Your task to perform on an android device: Add lg ultragear to the cart on target.com Image 0: 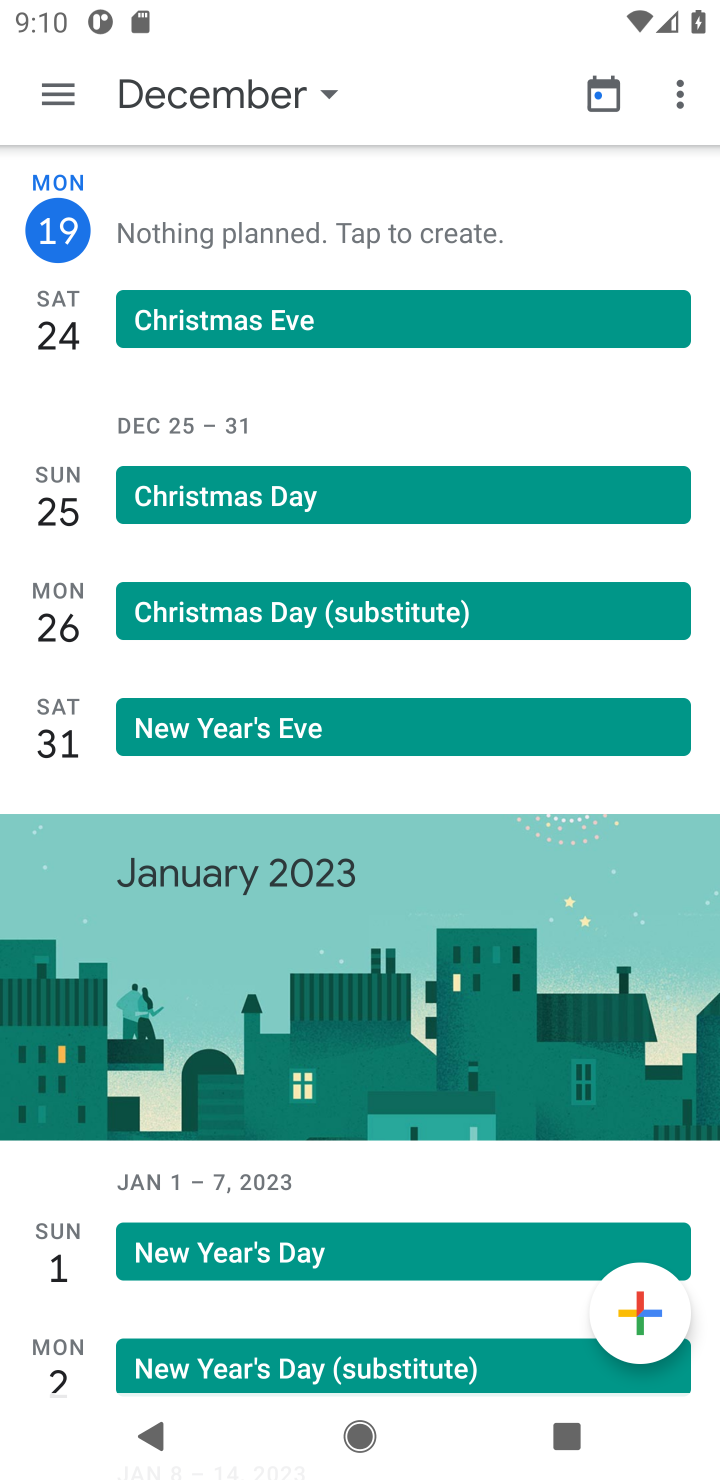
Step 0: press home button
Your task to perform on an android device: Add lg ultragear to the cart on target.com Image 1: 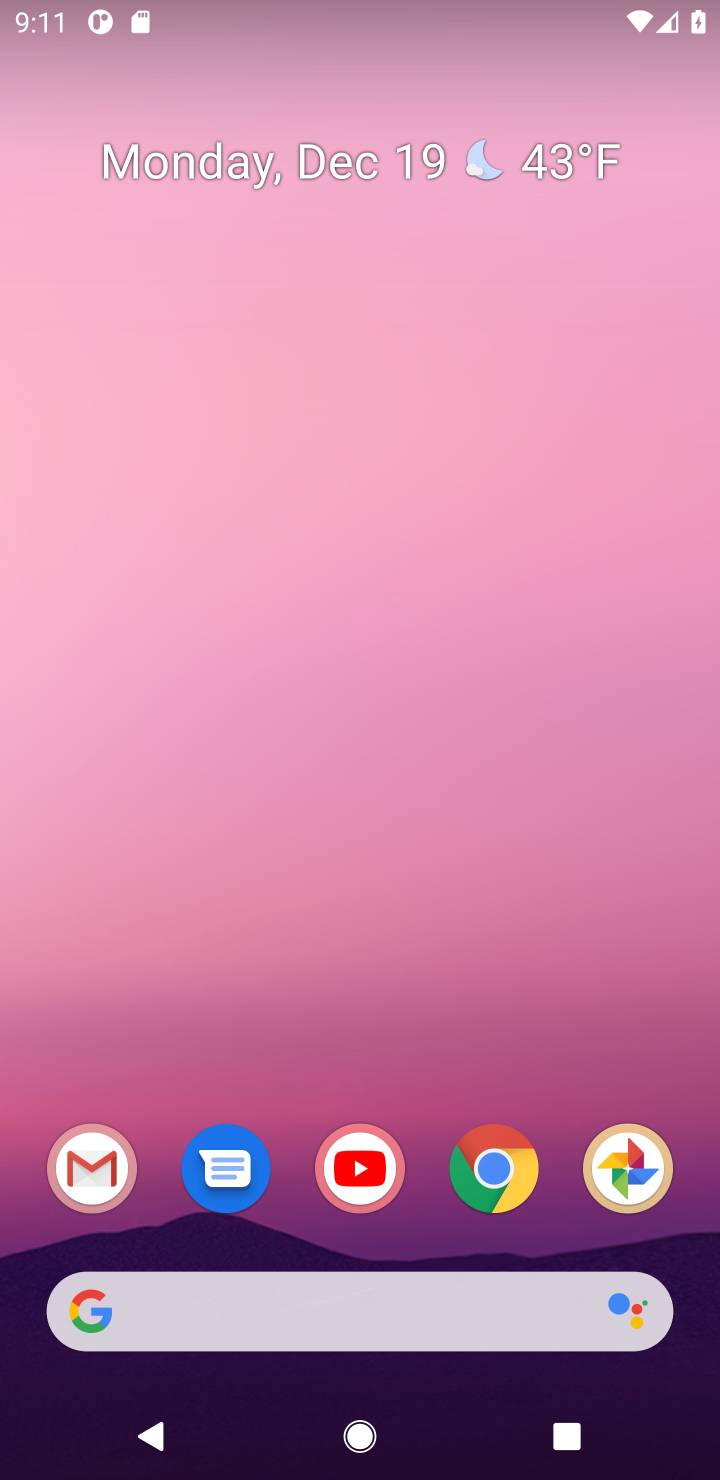
Step 1: click (498, 1181)
Your task to perform on an android device: Add lg ultragear to the cart on target.com Image 2: 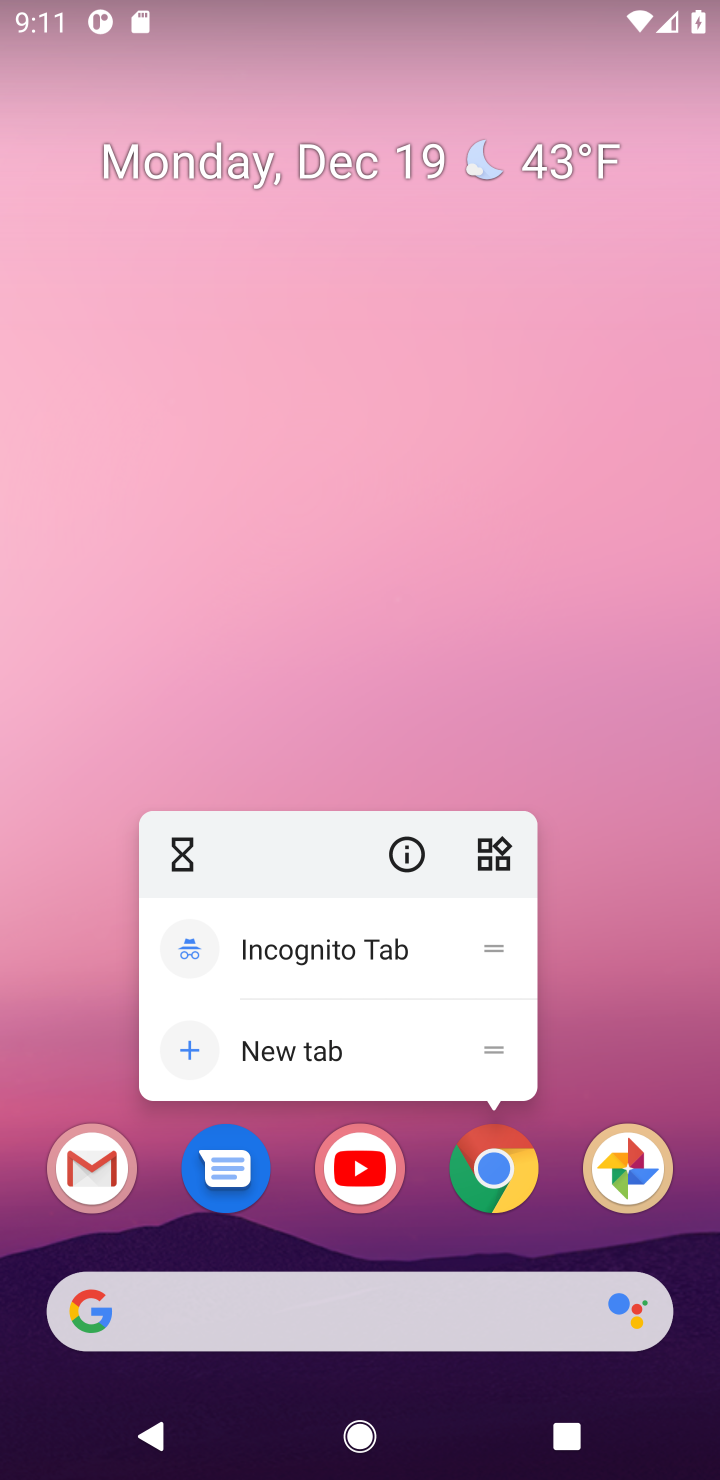
Step 2: click (498, 1181)
Your task to perform on an android device: Add lg ultragear to the cart on target.com Image 3: 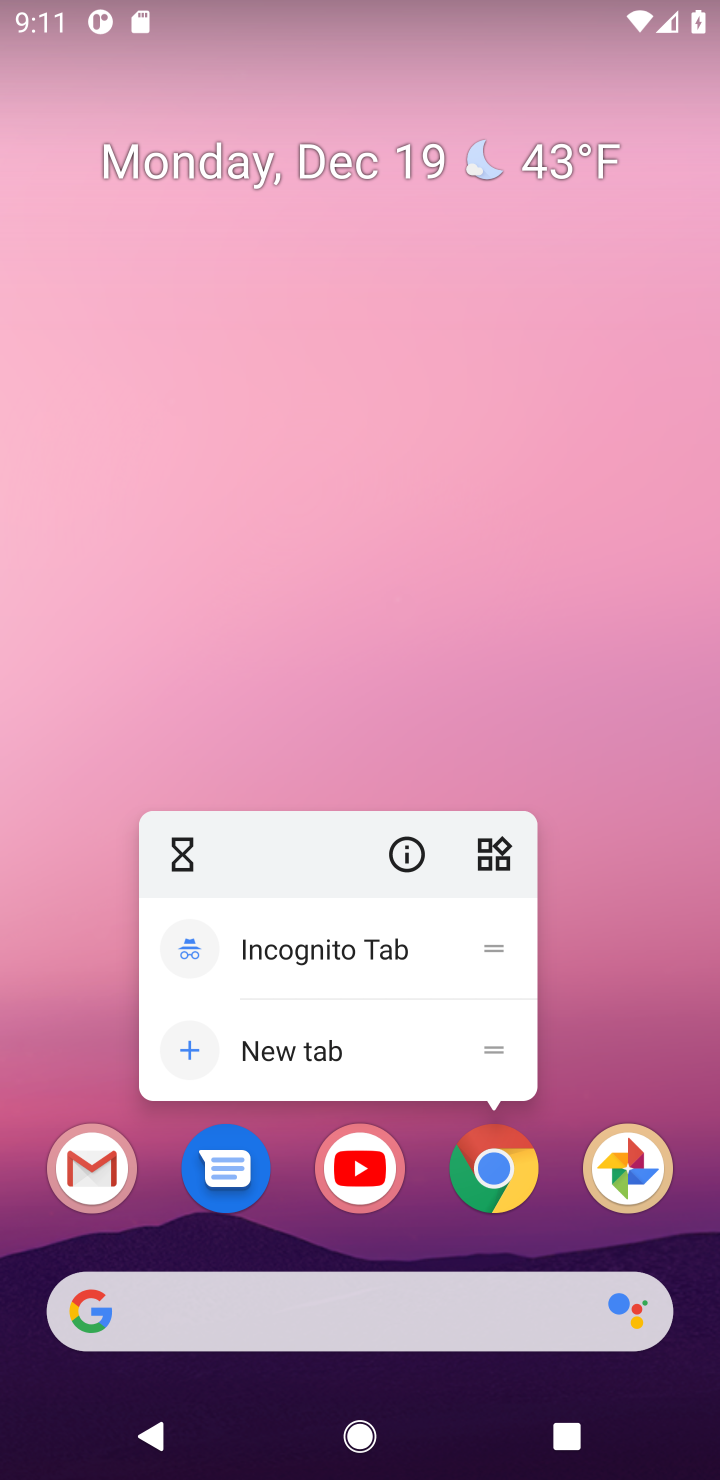
Step 3: click (481, 1167)
Your task to perform on an android device: Add lg ultragear to the cart on target.com Image 4: 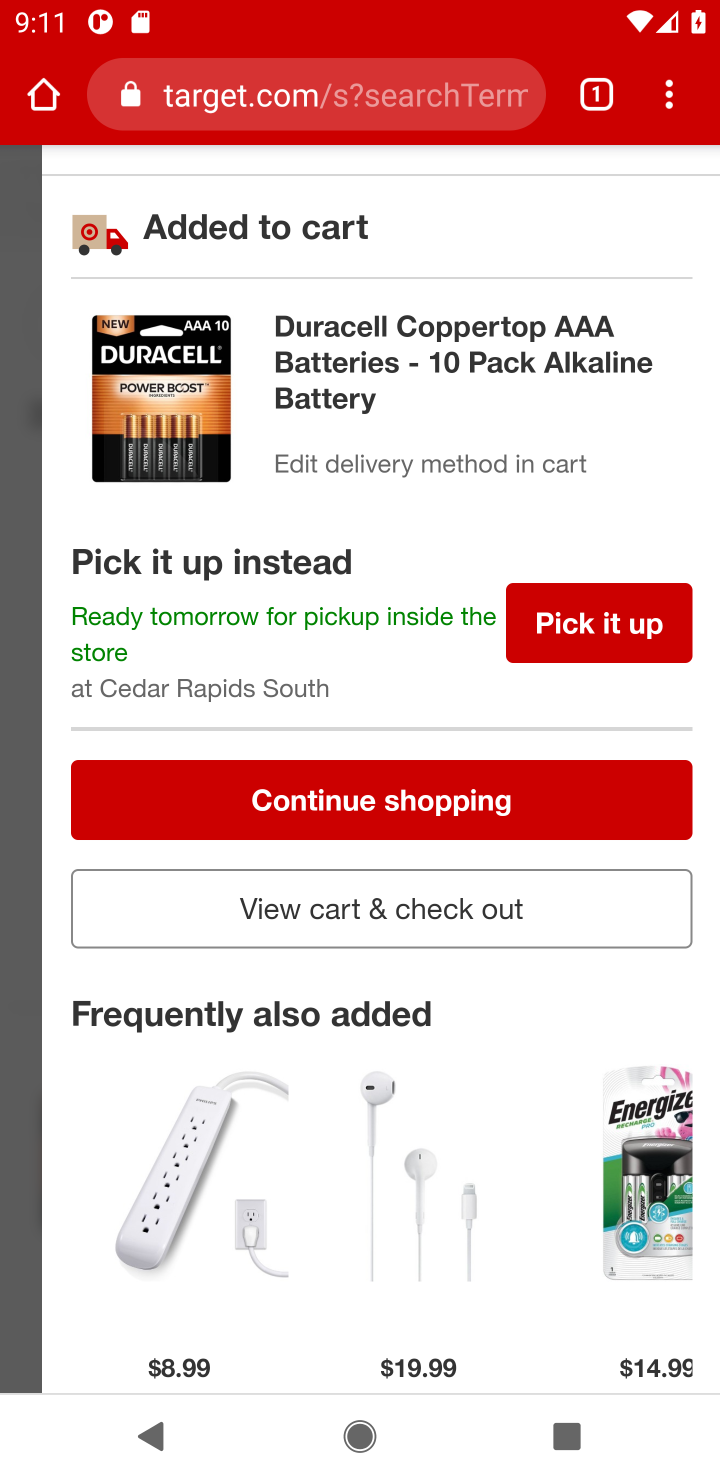
Step 4: click (659, 212)
Your task to perform on an android device: Add lg ultragear to the cart on target.com Image 5: 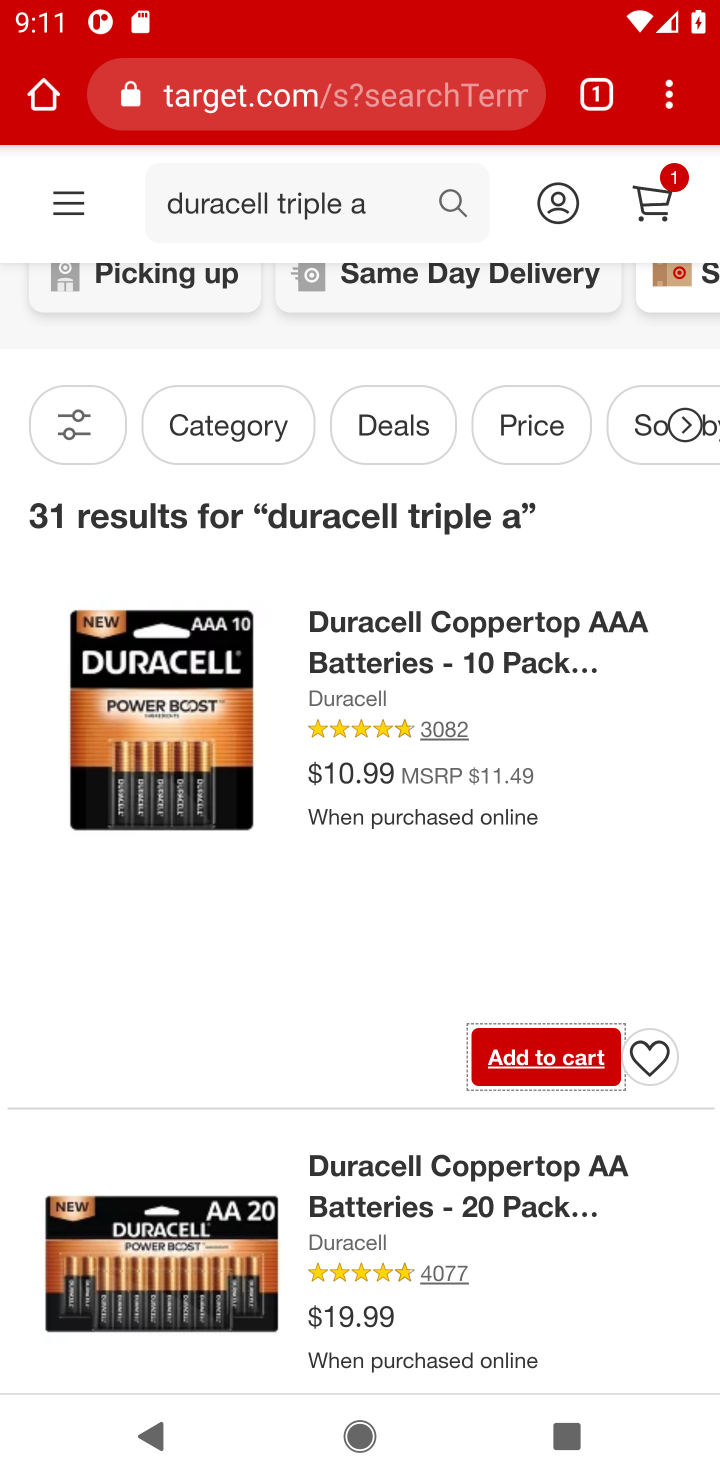
Step 5: click (313, 207)
Your task to perform on an android device: Add lg ultragear to the cart on target.com Image 6: 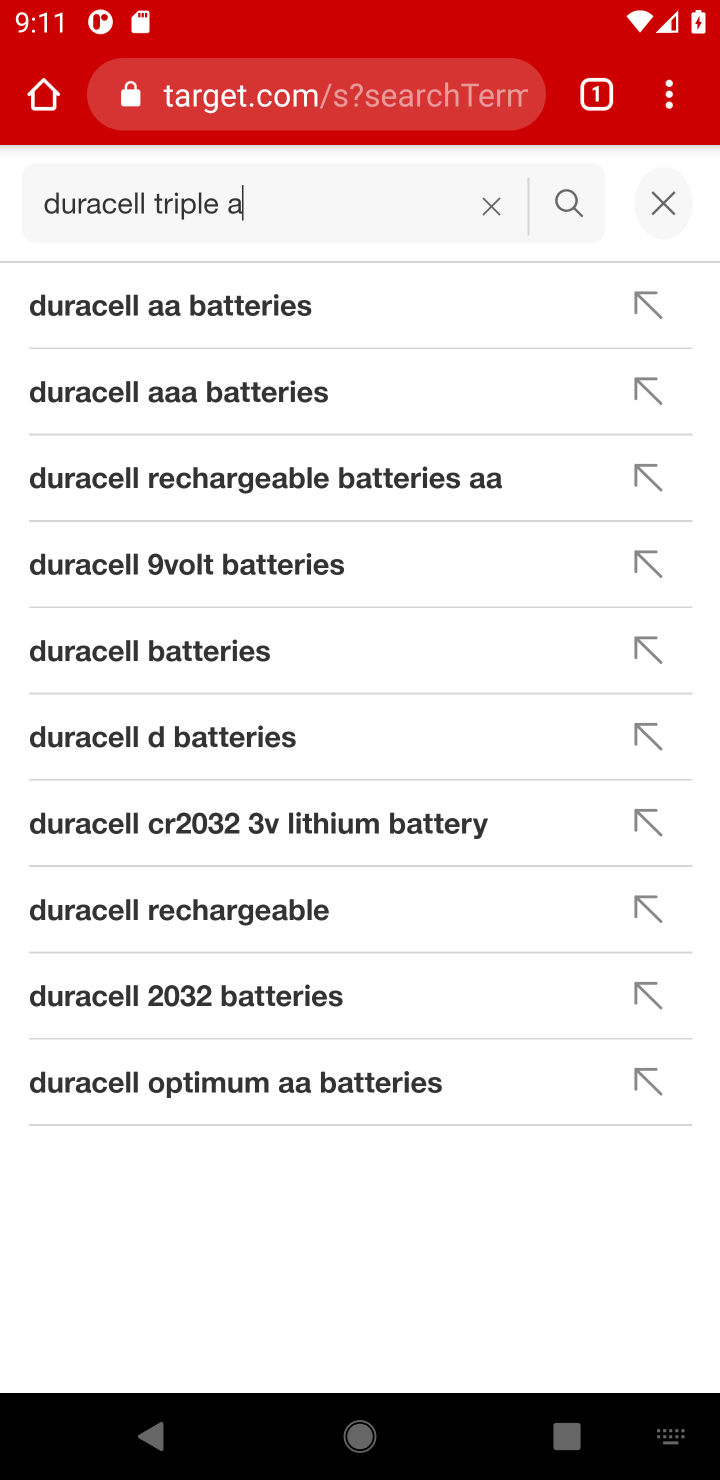
Step 6: click (491, 204)
Your task to perform on an android device: Add lg ultragear to the cart on target.com Image 7: 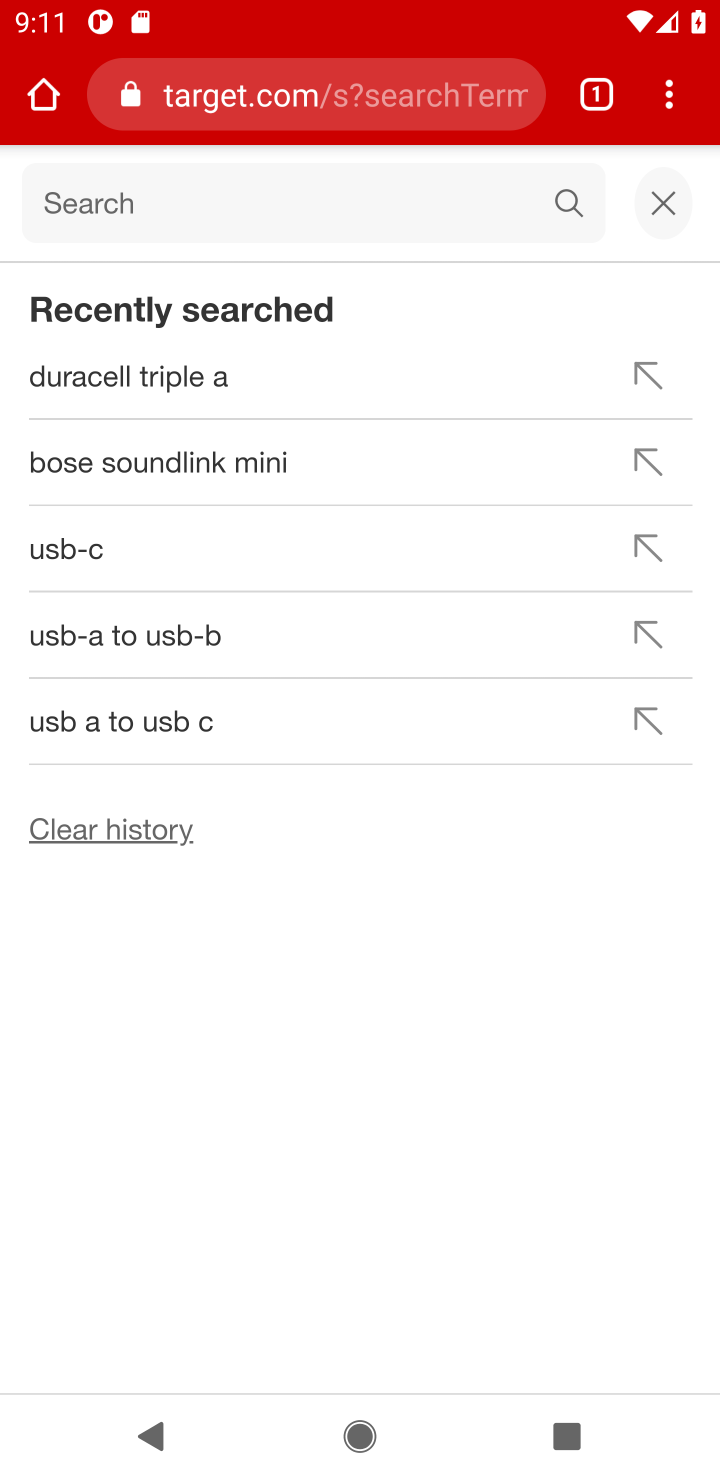
Step 7: type " lg ultragear"
Your task to perform on an android device: Add lg ultragear to the cart on target.com Image 8: 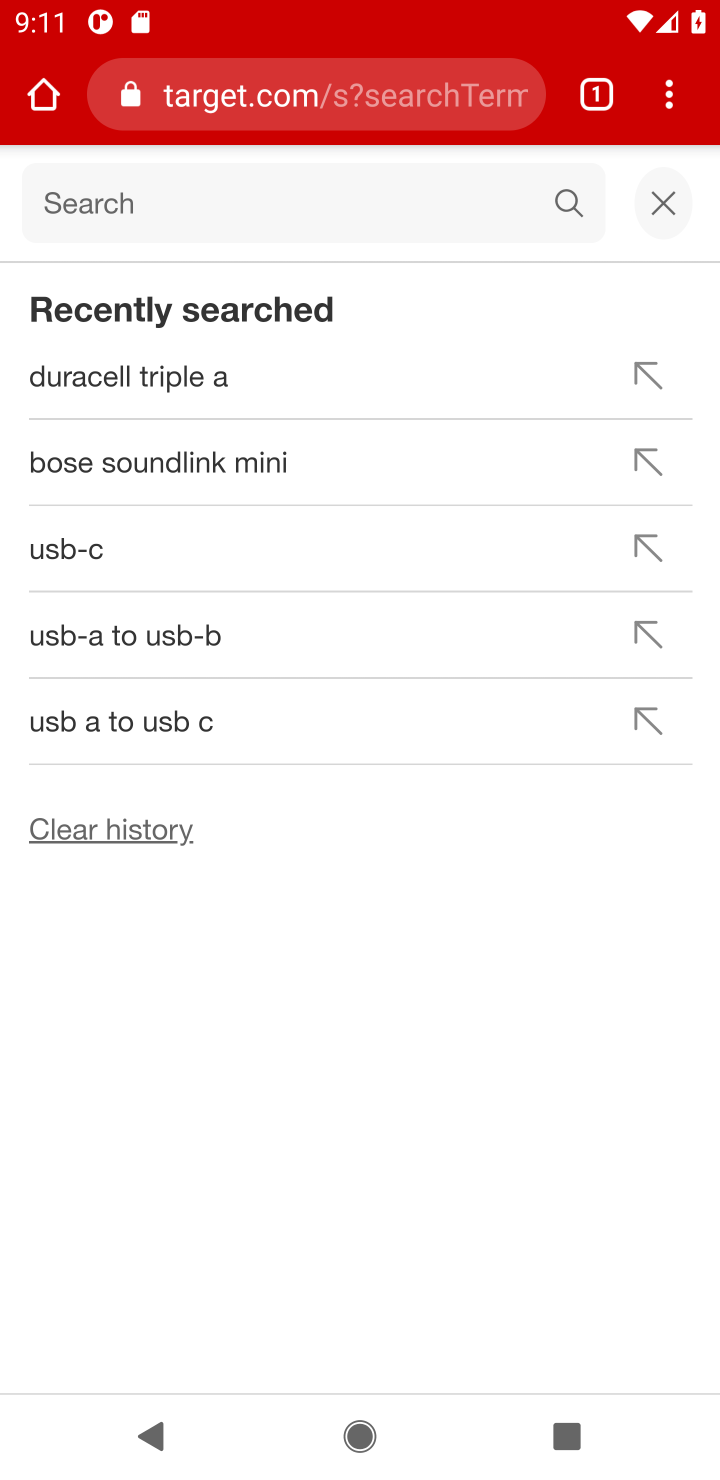
Step 8: click (127, 212)
Your task to perform on an android device: Add lg ultragear to the cart on target.com Image 9: 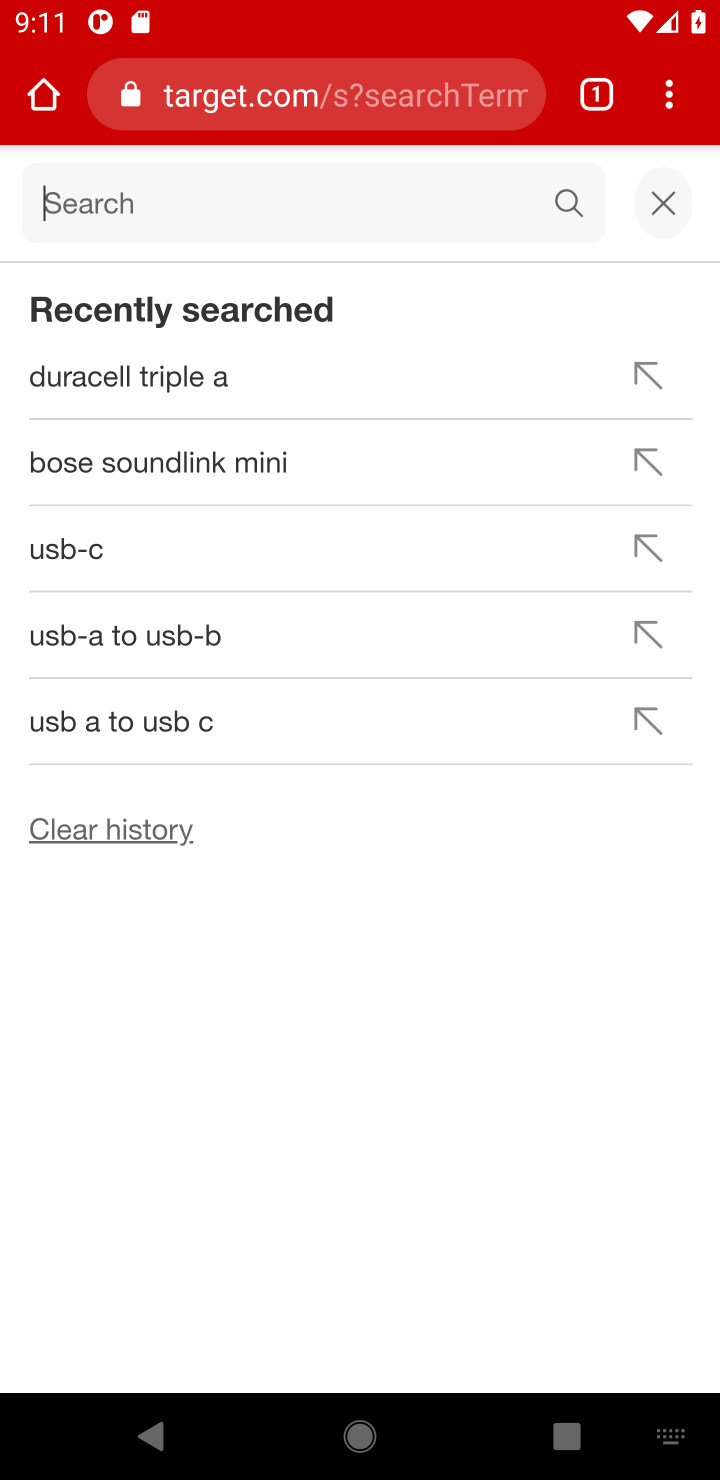
Step 9: type " lg ultragear"
Your task to perform on an android device: Add lg ultragear to the cart on target.com Image 10: 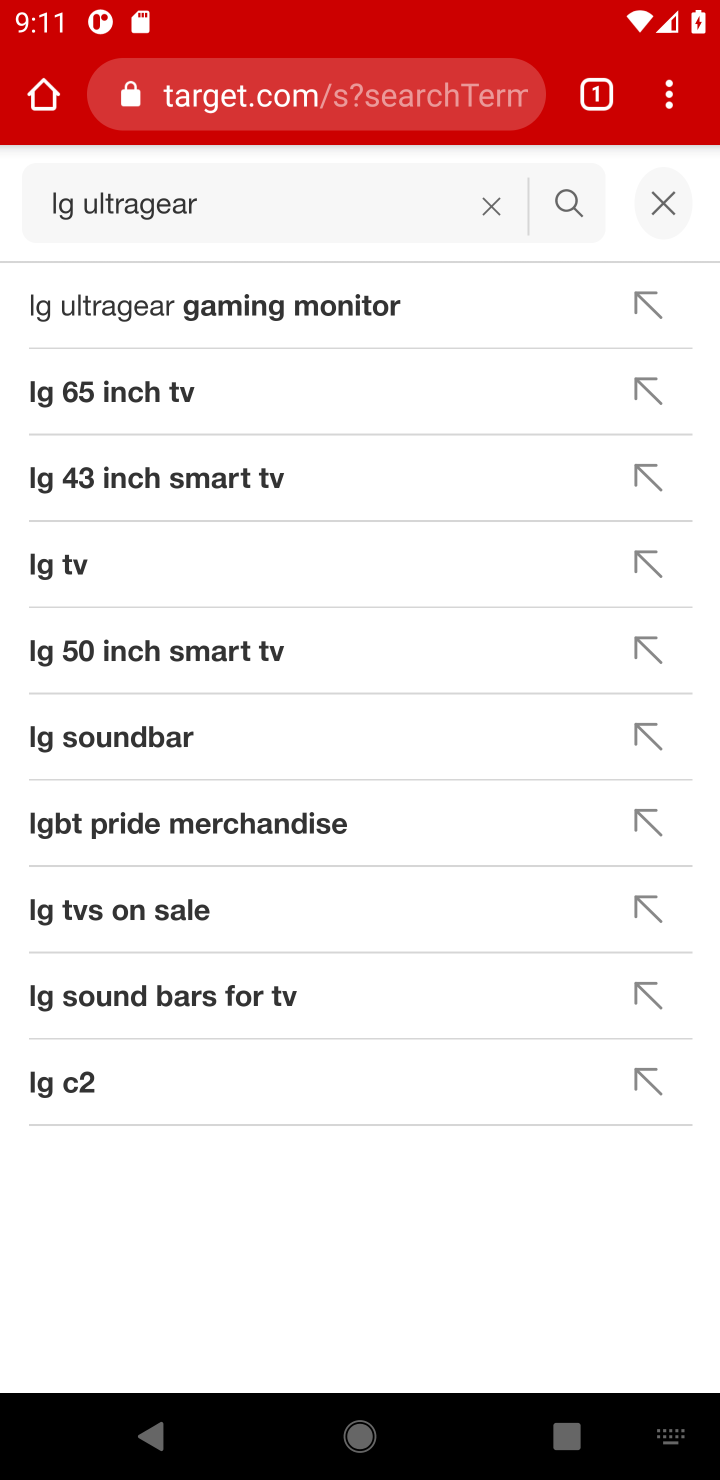
Step 10: click (565, 203)
Your task to perform on an android device: Add lg ultragear to the cart on target.com Image 11: 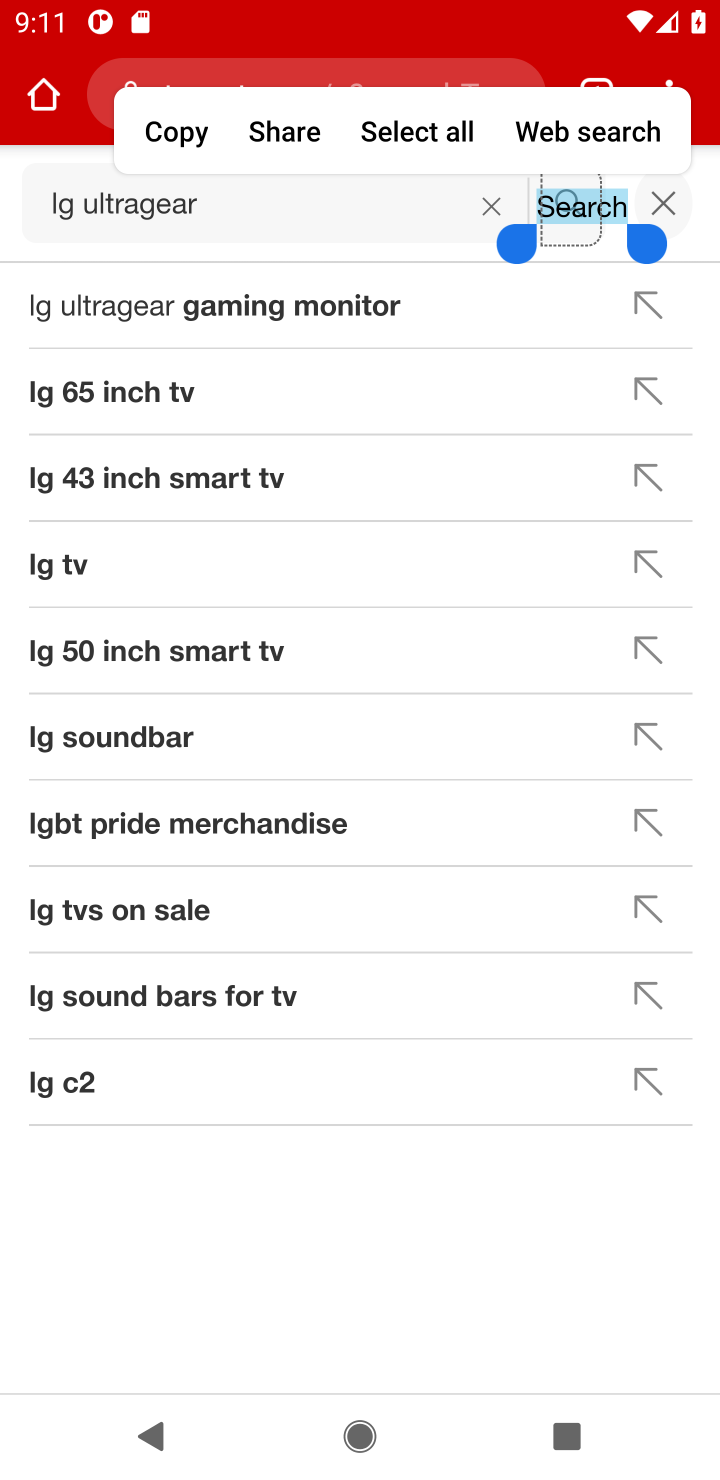
Step 11: click (561, 218)
Your task to perform on an android device: Add lg ultragear to the cart on target.com Image 12: 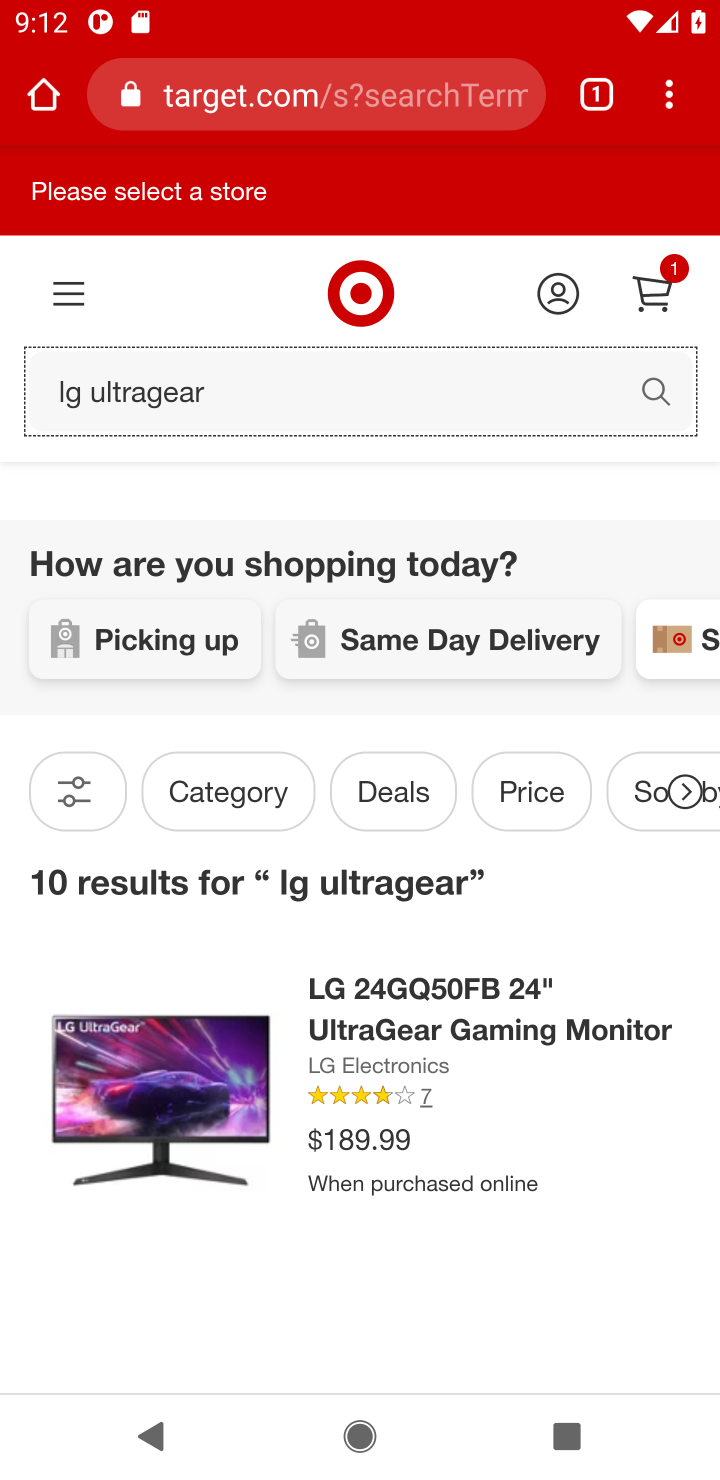
Step 12: drag from (324, 1051) to (339, 861)
Your task to perform on an android device: Add lg ultragear to the cart on target.com Image 13: 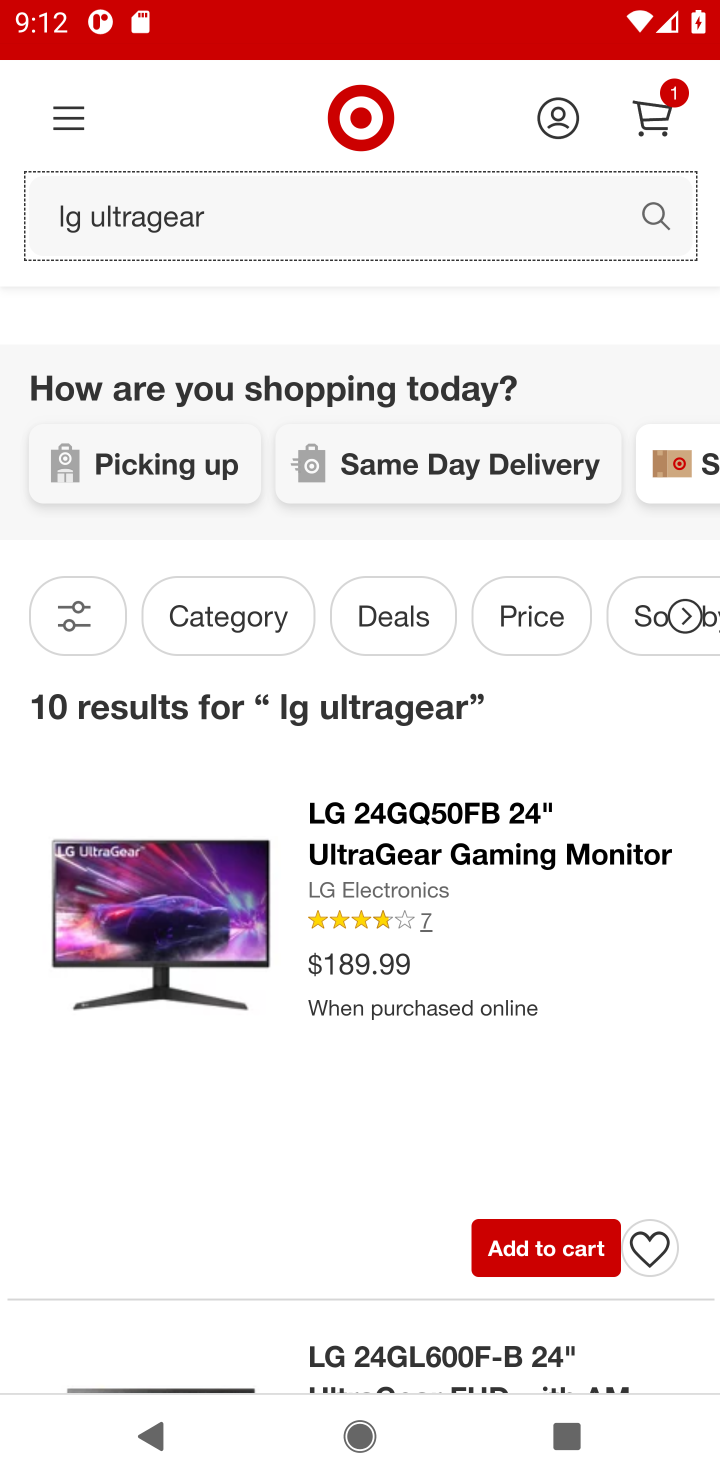
Step 13: click (523, 1242)
Your task to perform on an android device: Add lg ultragear to the cart on target.com Image 14: 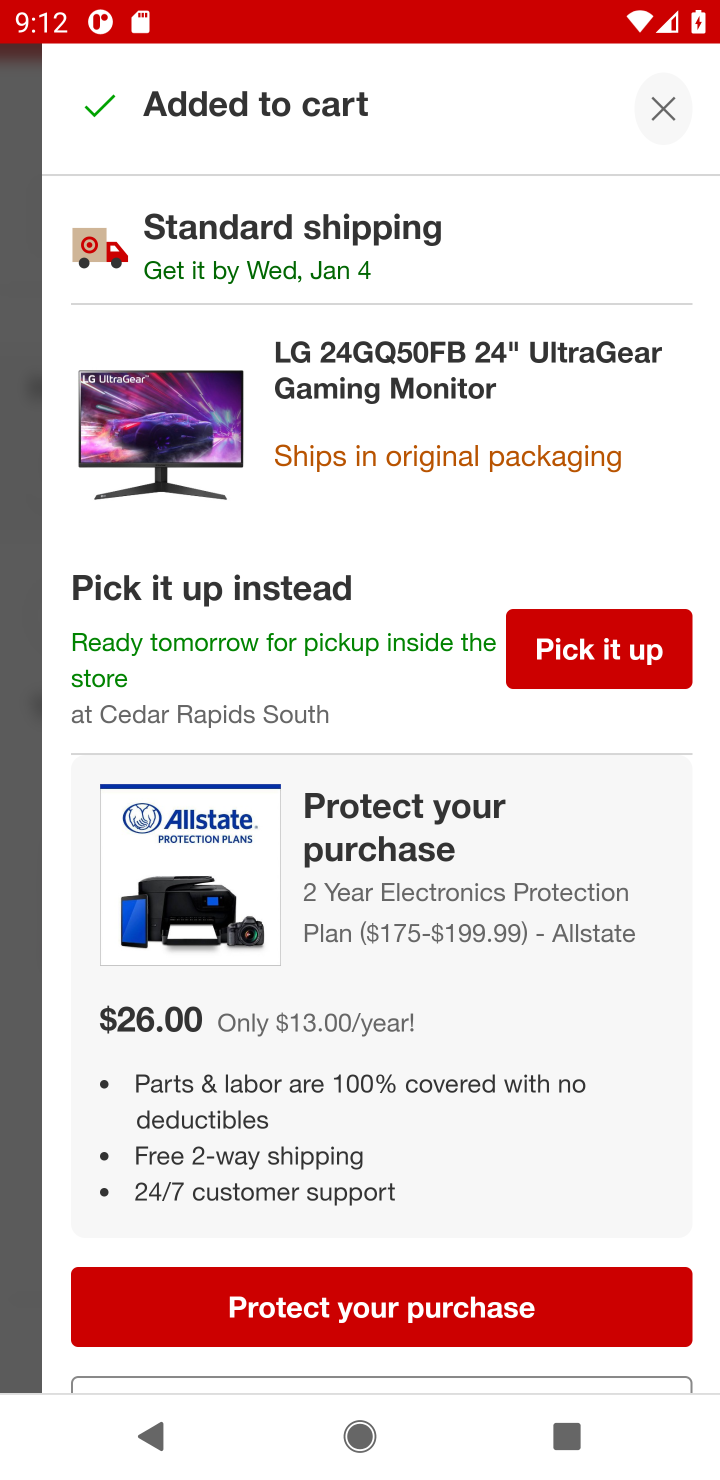
Step 14: task complete